Your task to perform on an android device: refresh tabs in the chrome app Image 0: 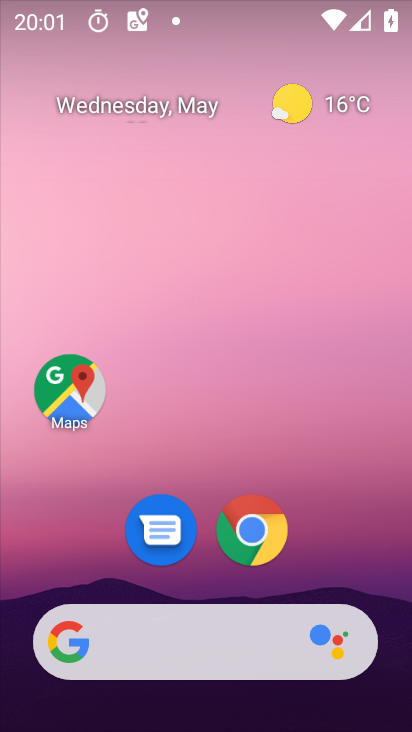
Step 0: click (256, 532)
Your task to perform on an android device: refresh tabs in the chrome app Image 1: 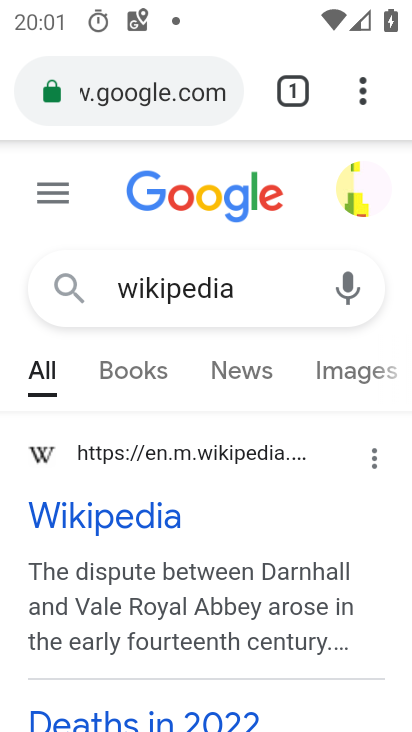
Step 1: click (359, 93)
Your task to perform on an android device: refresh tabs in the chrome app Image 2: 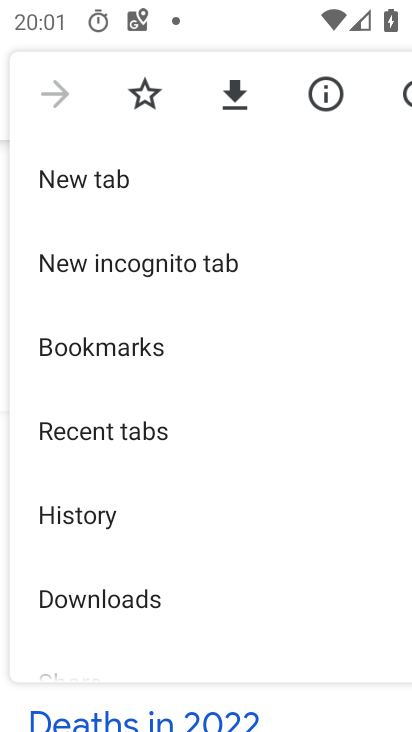
Step 2: click (405, 94)
Your task to perform on an android device: refresh tabs in the chrome app Image 3: 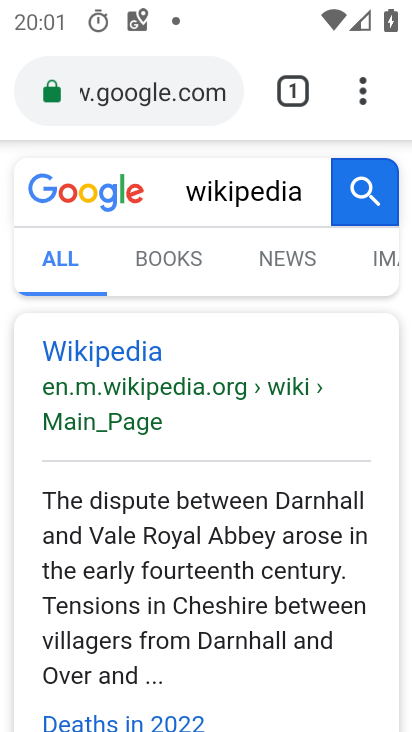
Step 3: task complete